Your task to perform on an android device: Is it going to rain tomorrow? Image 0: 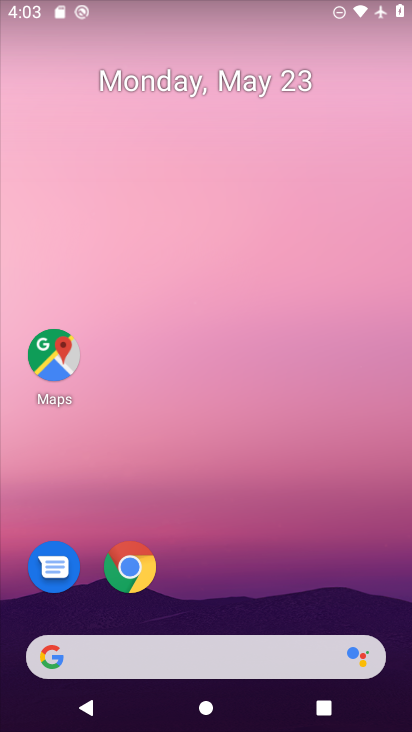
Step 0: click (166, 676)
Your task to perform on an android device: Is it going to rain tomorrow? Image 1: 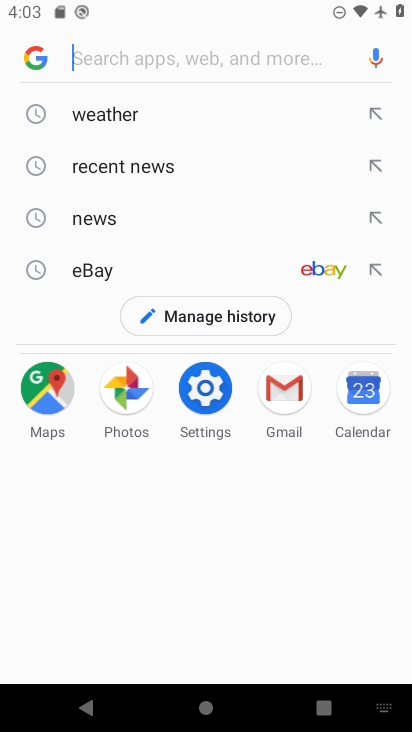
Step 1: click (109, 109)
Your task to perform on an android device: Is it going to rain tomorrow? Image 2: 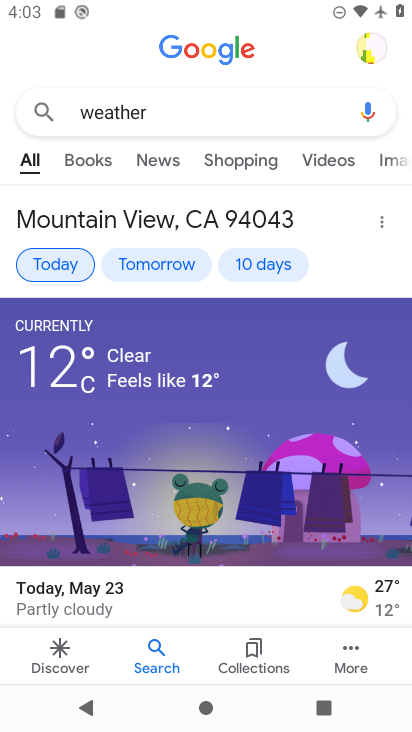
Step 2: click (147, 269)
Your task to perform on an android device: Is it going to rain tomorrow? Image 3: 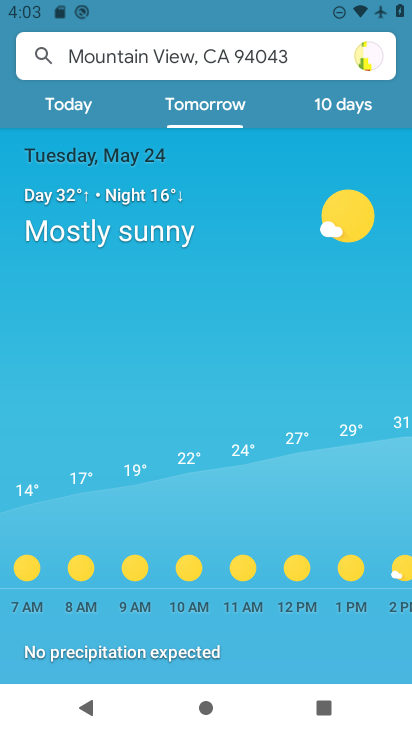
Step 3: task complete